Your task to perform on an android device: toggle improve location accuracy Image 0: 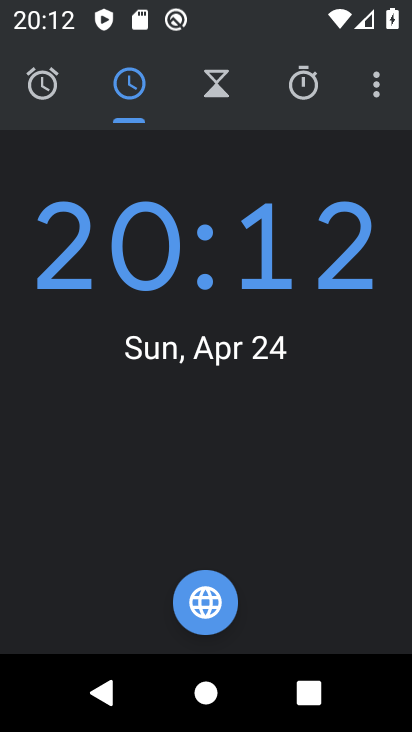
Step 0: press home button
Your task to perform on an android device: toggle improve location accuracy Image 1: 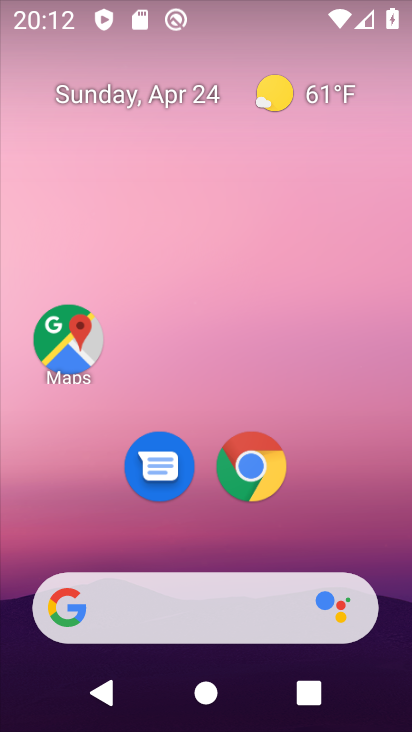
Step 1: drag from (210, 447) to (243, 4)
Your task to perform on an android device: toggle improve location accuracy Image 2: 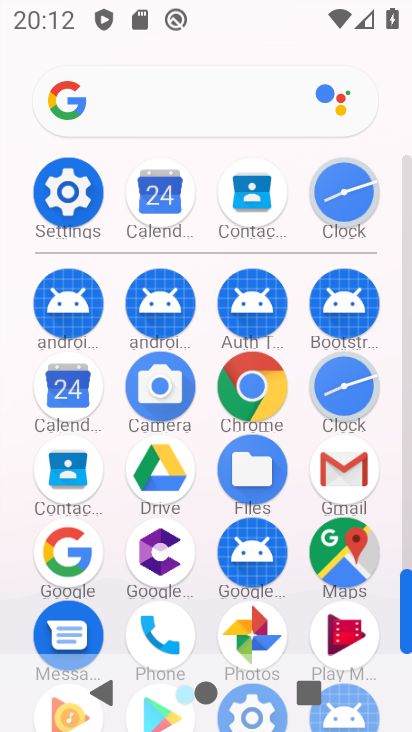
Step 2: click (59, 189)
Your task to perform on an android device: toggle improve location accuracy Image 3: 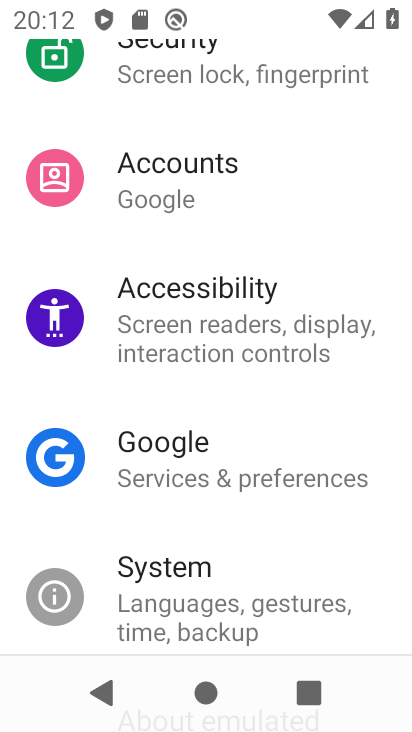
Step 3: drag from (216, 216) to (148, 638)
Your task to perform on an android device: toggle improve location accuracy Image 4: 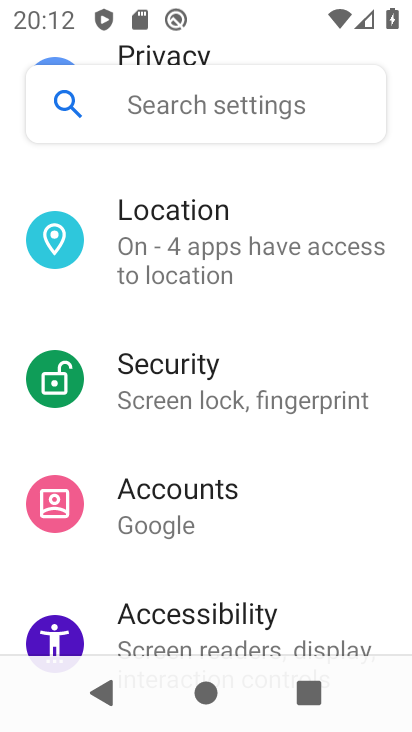
Step 4: click (193, 269)
Your task to perform on an android device: toggle improve location accuracy Image 5: 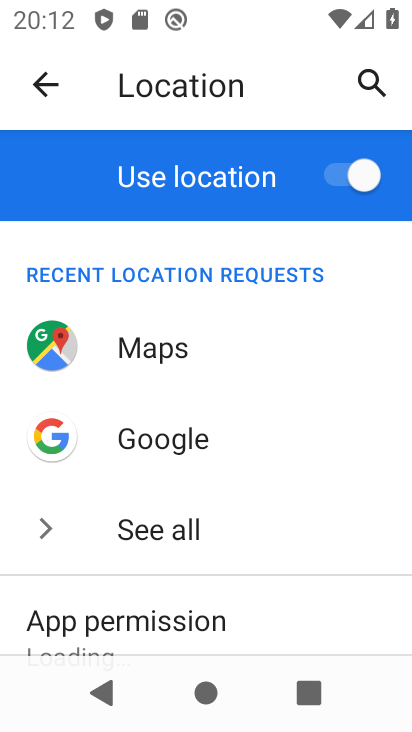
Step 5: drag from (150, 565) to (166, 167)
Your task to perform on an android device: toggle improve location accuracy Image 6: 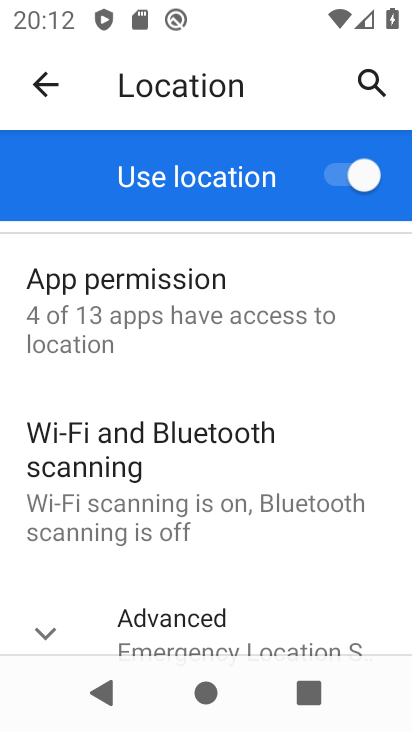
Step 6: drag from (137, 583) to (212, 276)
Your task to perform on an android device: toggle improve location accuracy Image 7: 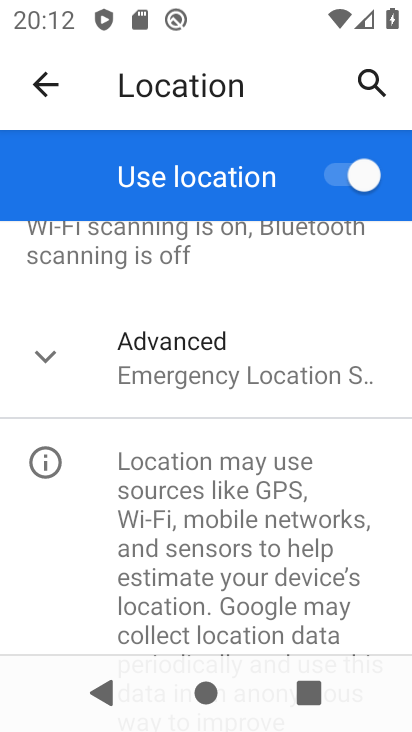
Step 7: click (143, 375)
Your task to perform on an android device: toggle improve location accuracy Image 8: 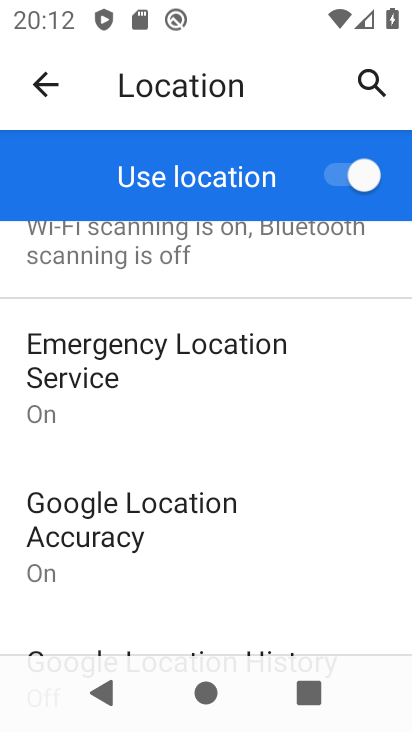
Step 8: click (161, 546)
Your task to perform on an android device: toggle improve location accuracy Image 9: 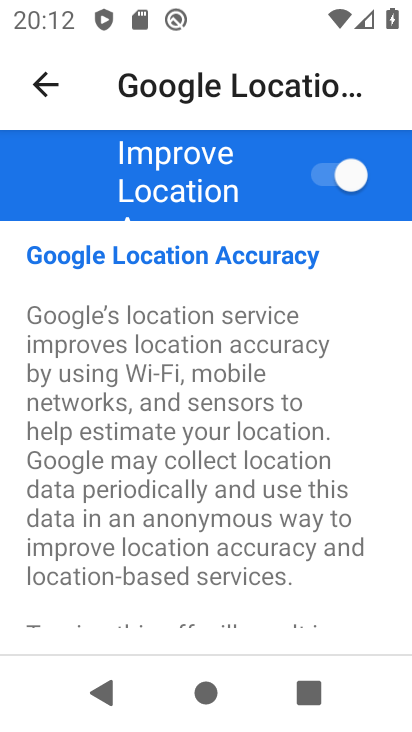
Step 9: click (320, 178)
Your task to perform on an android device: toggle improve location accuracy Image 10: 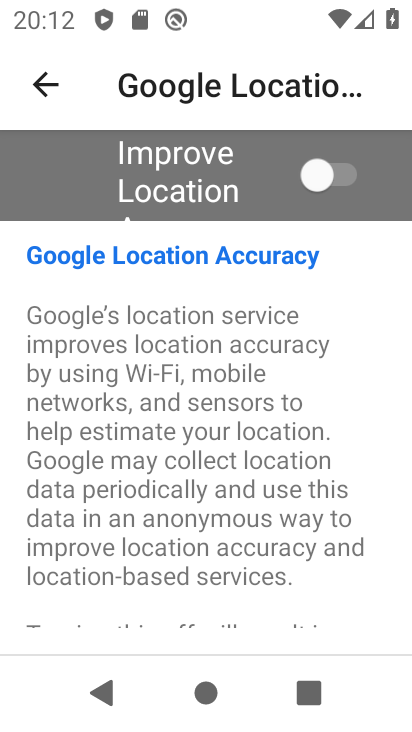
Step 10: task complete